Your task to perform on an android device: Open calendar and show me the second week of next month Image 0: 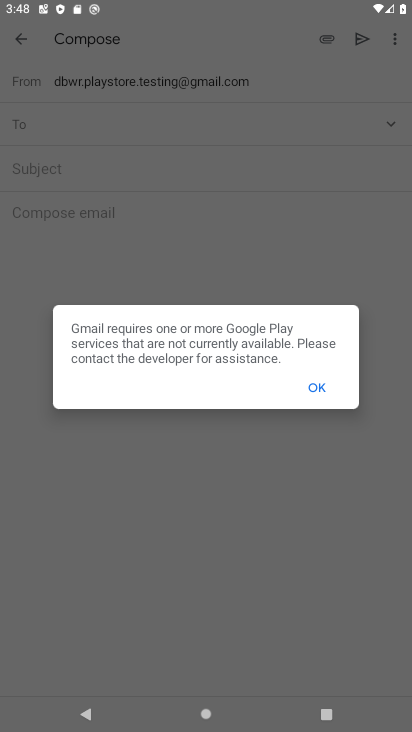
Step 0: press home button
Your task to perform on an android device: Open calendar and show me the second week of next month Image 1: 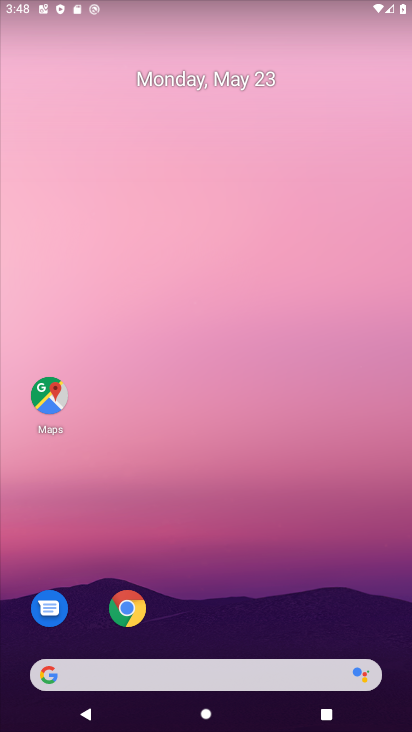
Step 1: drag from (220, 606) to (223, 14)
Your task to perform on an android device: Open calendar and show me the second week of next month Image 2: 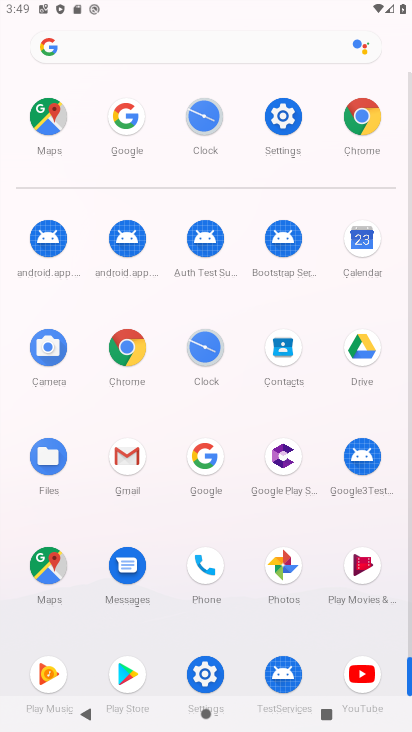
Step 2: click (364, 240)
Your task to perform on an android device: Open calendar and show me the second week of next month Image 3: 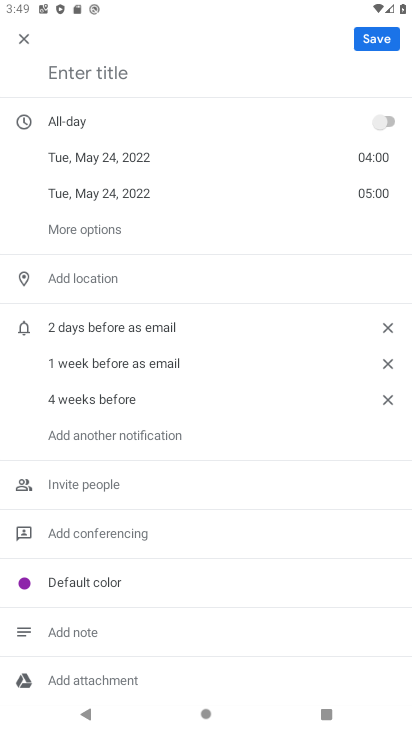
Step 3: click (21, 40)
Your task to perform on an android device: Open calendar and show me the second week of next month Image 4: 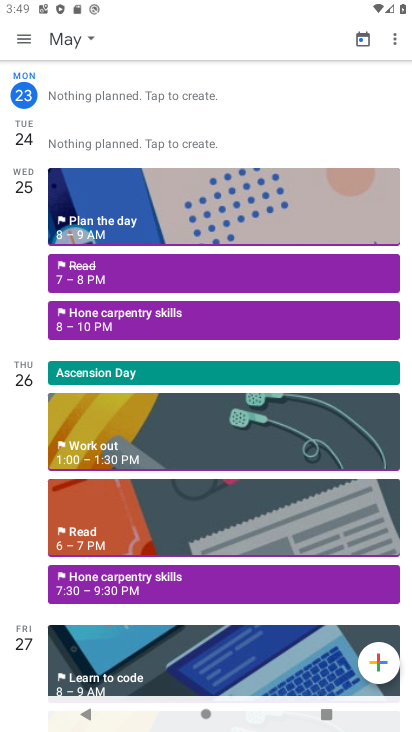
Step 4: click (364, 40)
Your task to perform on an android device: Open calendar and show me the second week of next month Image 5: 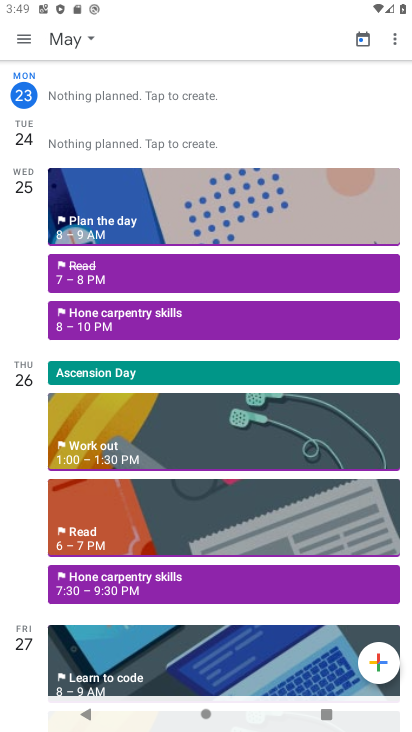
Step 5: click (91, 39)
Your task to perform on an android device: Open calendar and show me the second week of next month Image 6: 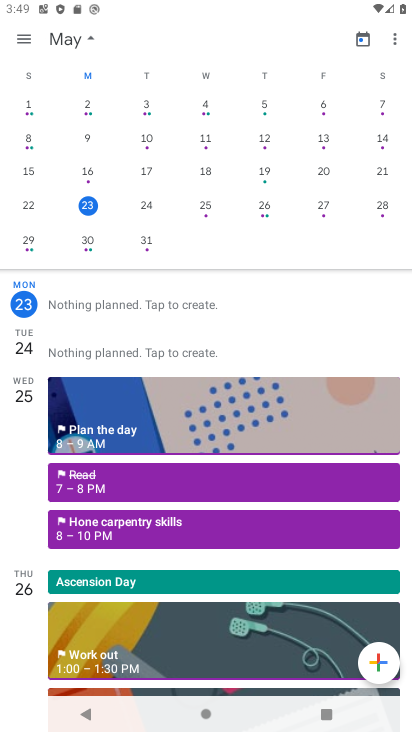
Step 6: drag from (365, 185) to (13, 186)
Your task to perform on an android device: Open calendar and show me the second week of next month Image 7: 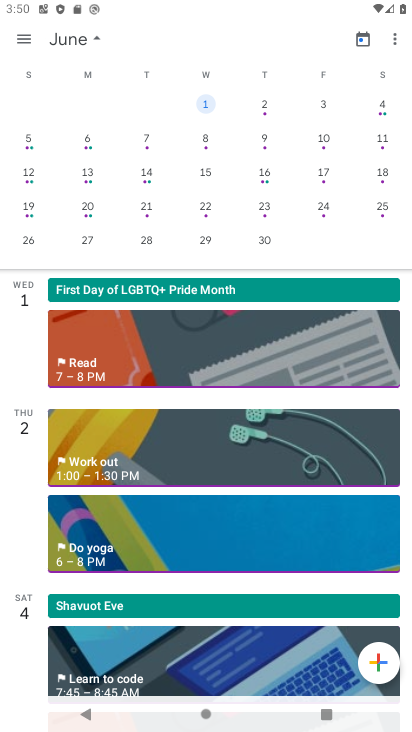
Step 7: click (90, 174)
Your task to perform on an android device: Open calendar and show me the second week of next month Image 8: 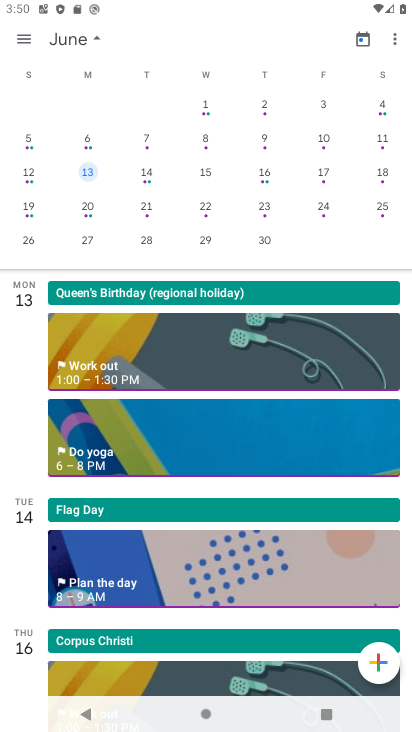
Step 8: click (32, 42)
Your task to perform on an android device: Open calendar and show me the second week of next month Image 9: 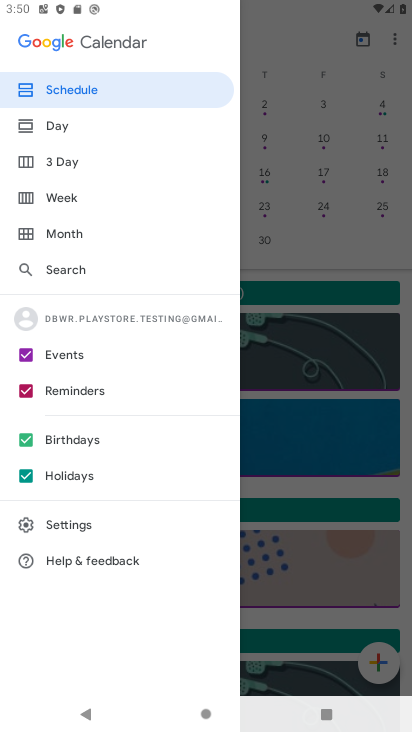
Step 9: click (65, 196)
Your task to perform on an android device: Open calendar and show me the second week of next month Image 10: 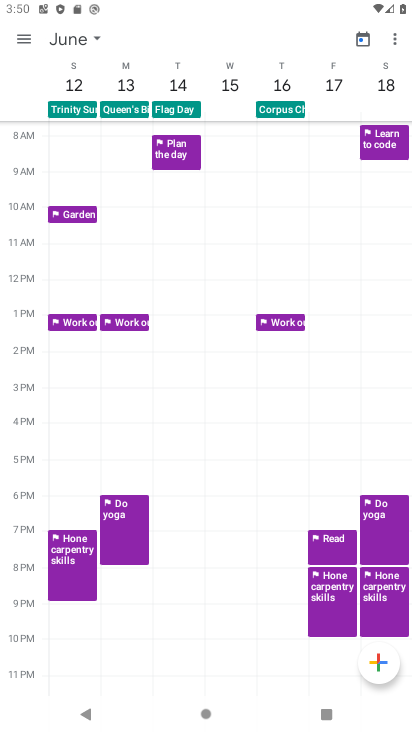
Step 10: task complete